Your task to perform on an android device: turn off sleep mode Image 0: 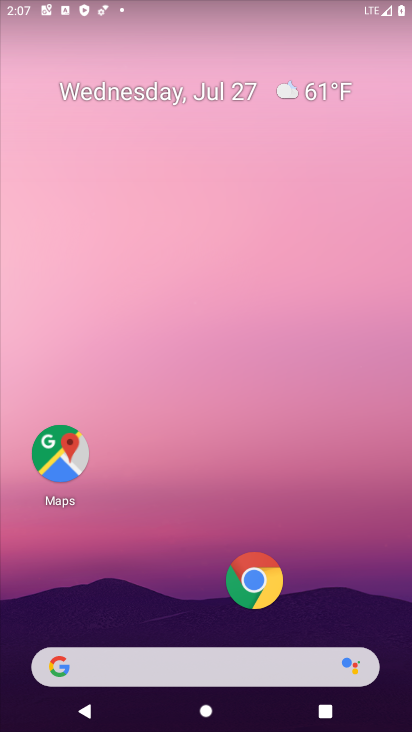
Step 0: drag from (217, 156) to (197, 204)
Your task to perform on an android device: turn off sleep mode Image 1: 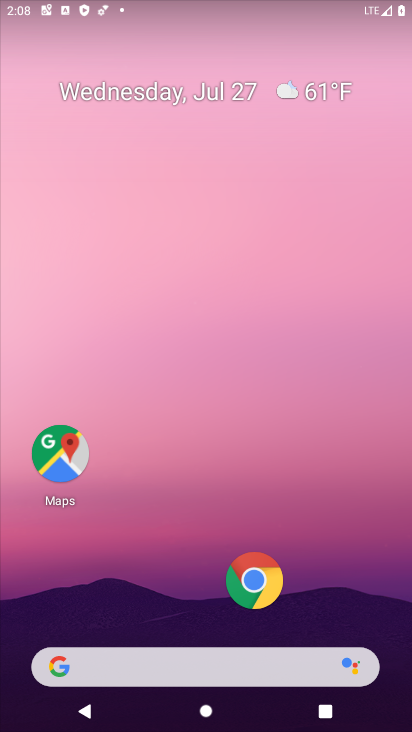
Step 1: drag from (203, 472) to (223, 178)
Your task to perform on an android device: turn off sleep mode Image 2: 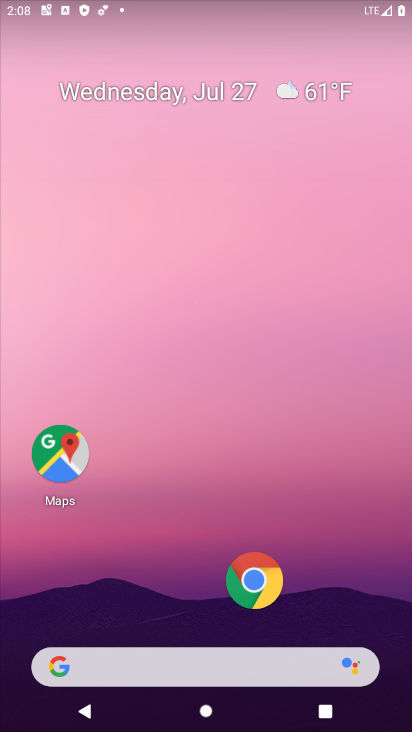
Step 2: drag from (193, 596) to (204, 144)
Your task to perform on an android device: turn off sleep mode Image 3: 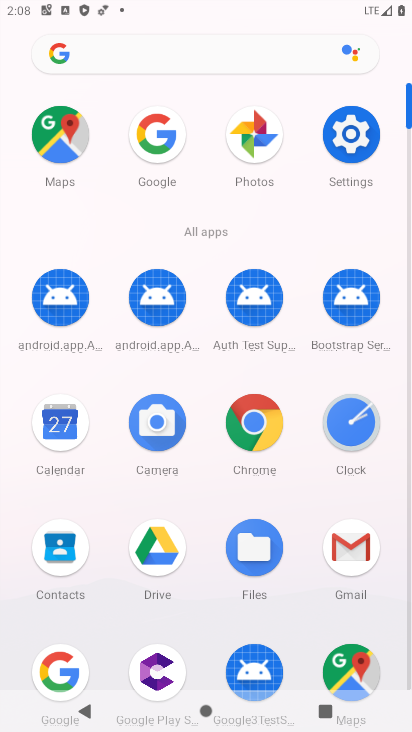
Step 3: click (356, 117)
Your task to perform on an android device: turn off sleep mode Image 4: 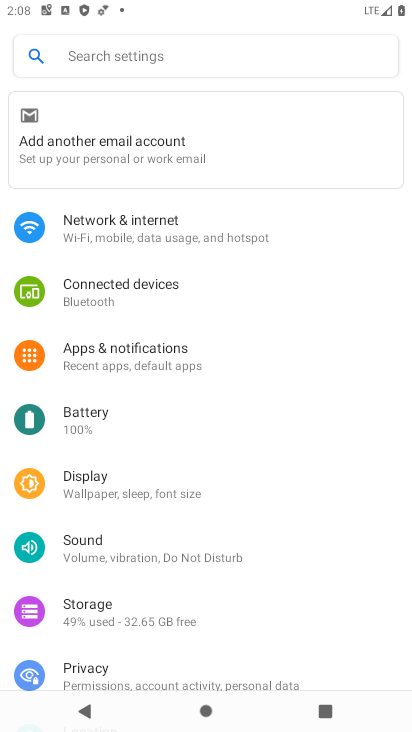
Step 4: click (112, 462)
Your task to perform on an android device: turn off sleep mode Image 5: 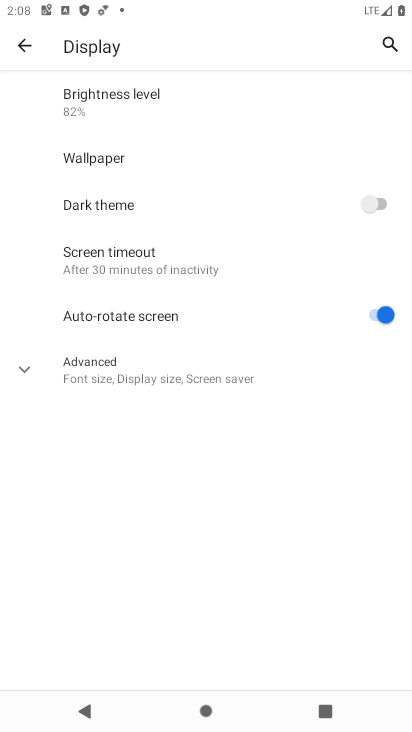
Step 5: click (169, 256)
Your task to perform on an android device: turn off sleep mode Image 6: 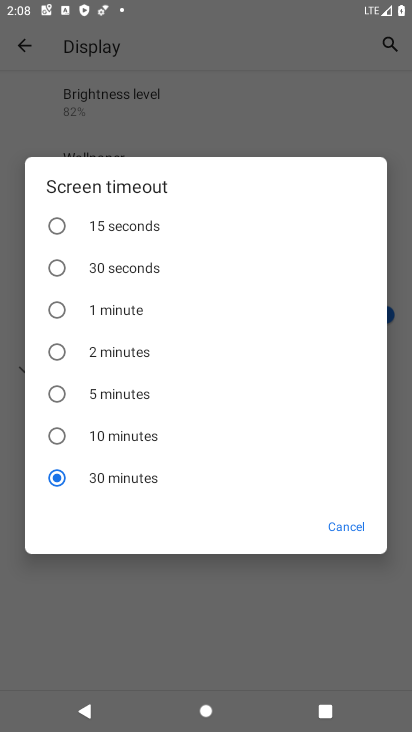
Step 6: click (111, 268)
Your task to perform on an android device: turn off sleep mode Image 7: 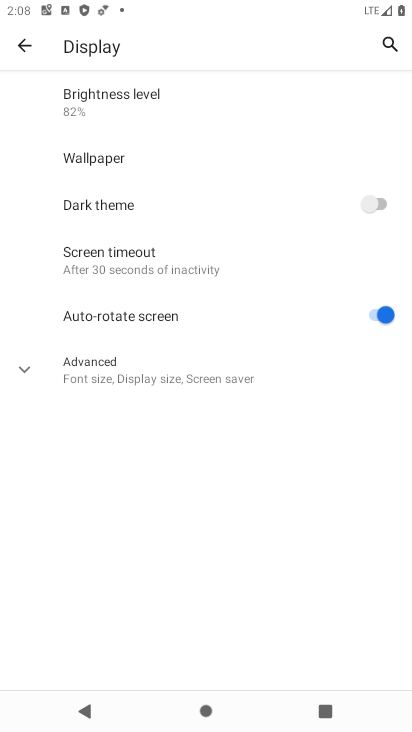
Step 7: task complete